Your task to perform on an android device: turn on the 12-hour format for clock Image 0: 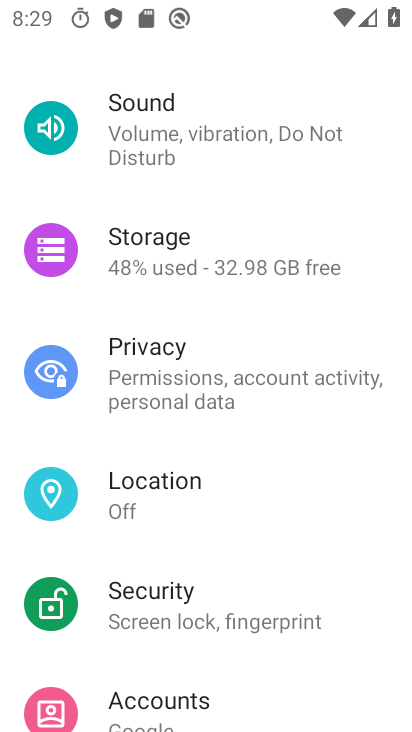
Step 0: press back button
Your task to perform on an android device: turn on the 12-hour format for clock Image 1: 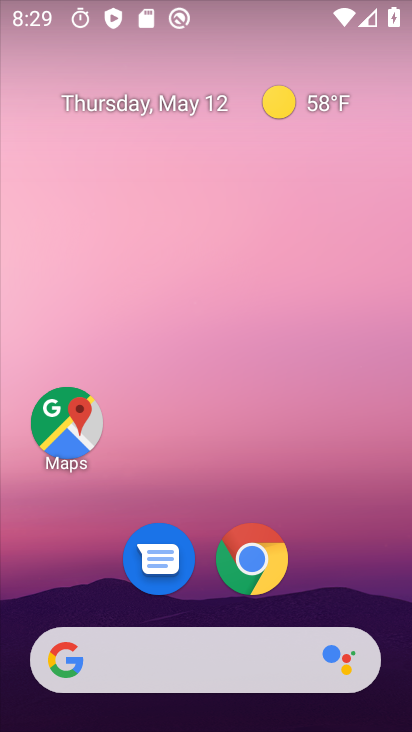
Step 1: drag from (319, 579) to (211, 149)
Your task to perform on an android device: turn on the 12-hour format for clock Image 2: 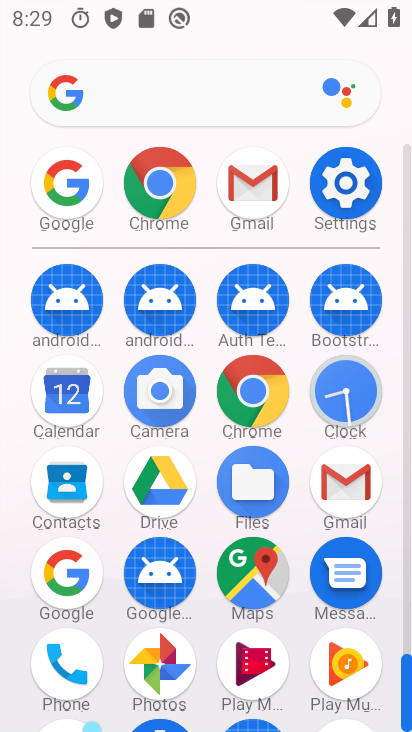
Step 2: click (343, 392)
Your task to perform on an android device: turn on the 12-hour format for clock Image 3: 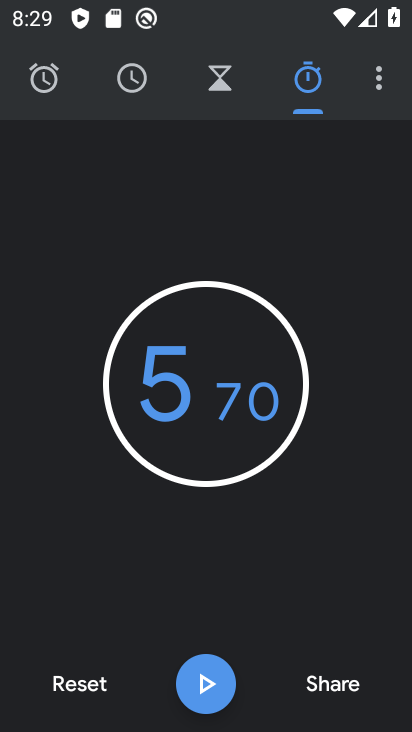
Step 3: click (382, 79)
Your task to perform on an android device: turn on the 12-hour format for clock Image 4: 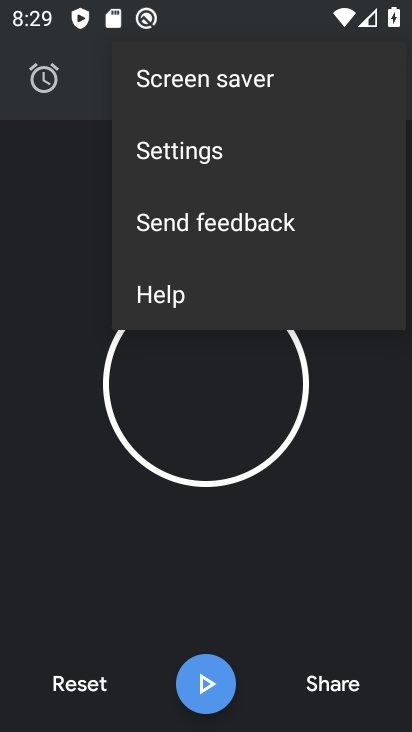
Step 4: click (222, 152)
Your task to perform on an android device: turn on the 12-hour format for clock Image 5: 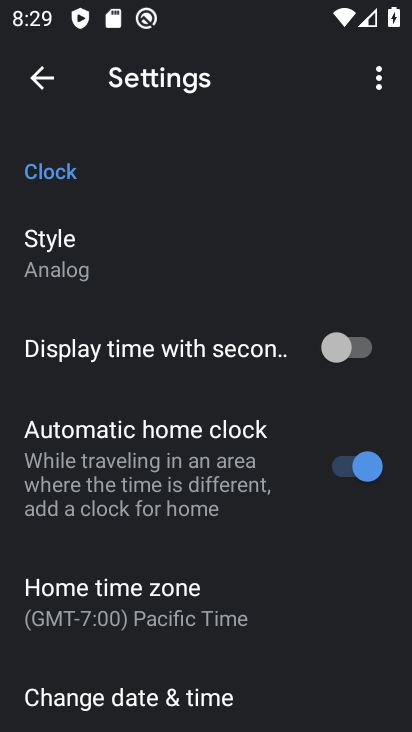
Step 5: drag from (138, 532) to (224, 341)
Your task to perform on an android device: turn on the 12-hour format for clock Image 6: 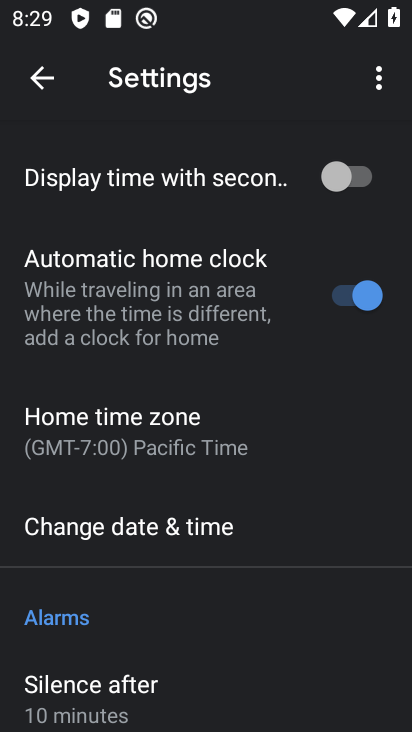
Step 6: click (152, 522)
Your task to perform on an android device: turn on the 12-hour format for clock Image 7: 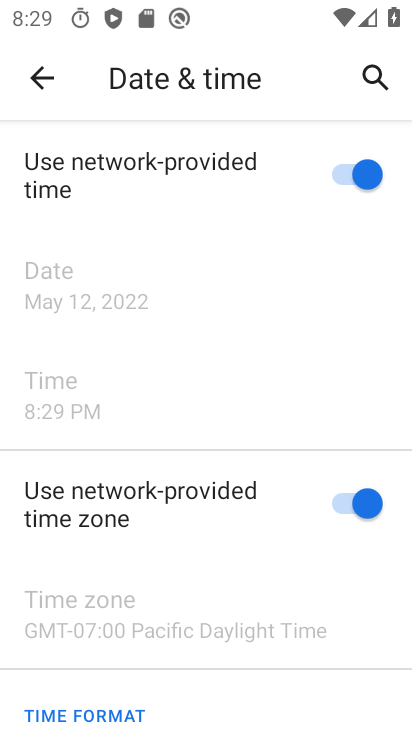
Step 7: task complete